Your task to perform on an android device: Go to Reddit.com Image 0: 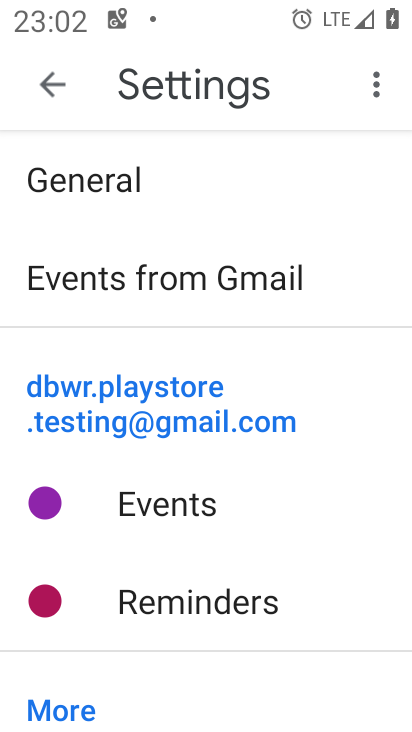
Step 0: press home button
Your task to perform on an android device: Go to Reddit.com Image 1: 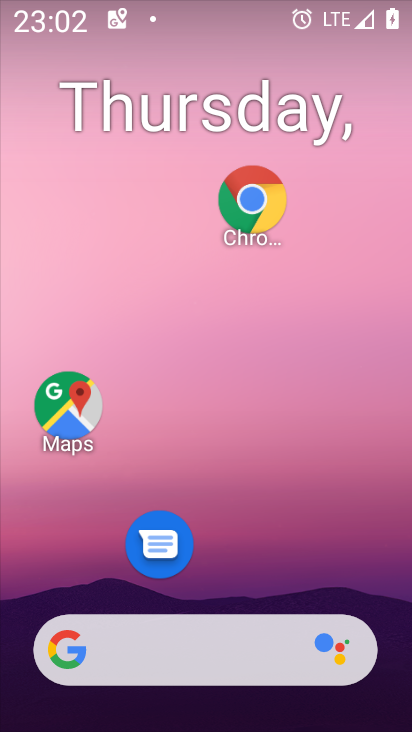
Step 1: click (196, 622)
Your task to perform on an android device: Go to Reddit.com Image 2: 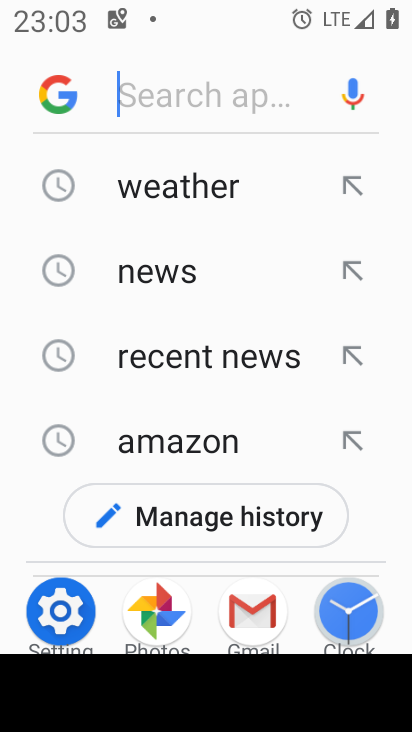
Step 2: type "reddit.cvom"
Your task to perform on an android device: Go to Reddit.com Image 3: 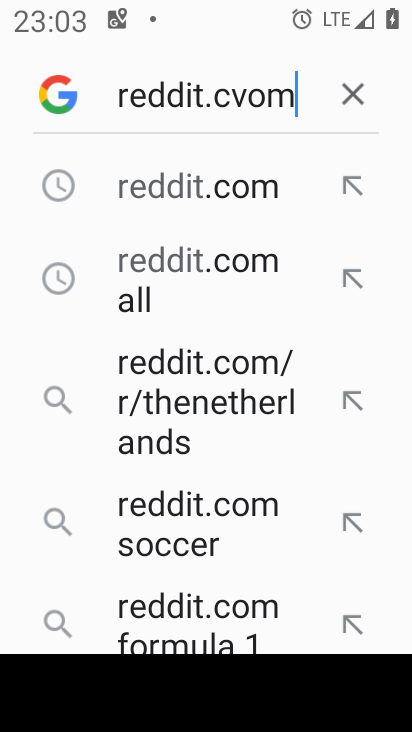
Step 3: type ""
Your task to perform on an android device: Go to Reddit.com Image 4: 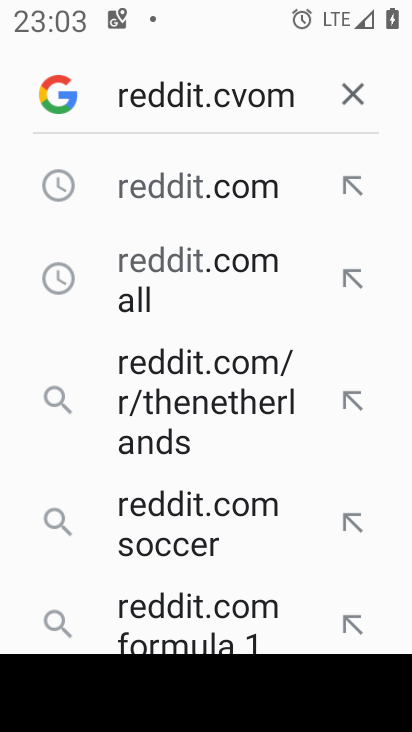
Step 4: type ""
Your task to perform on an android device: Go to Reddit.com Image 5: 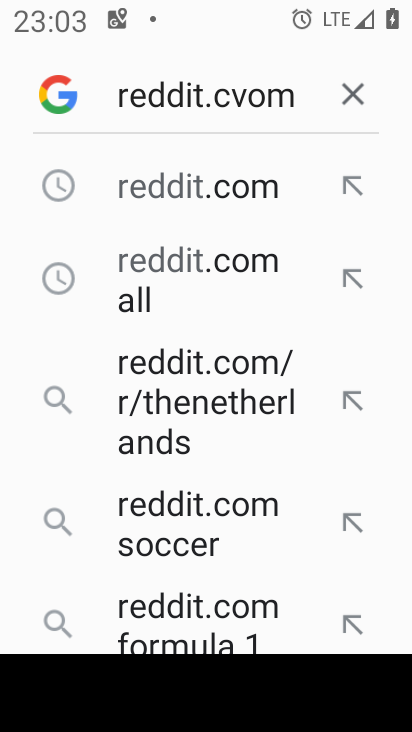
Step 5: click (196, 198)
Your task to perform on an android device: Go to Reddit.com Image 6: 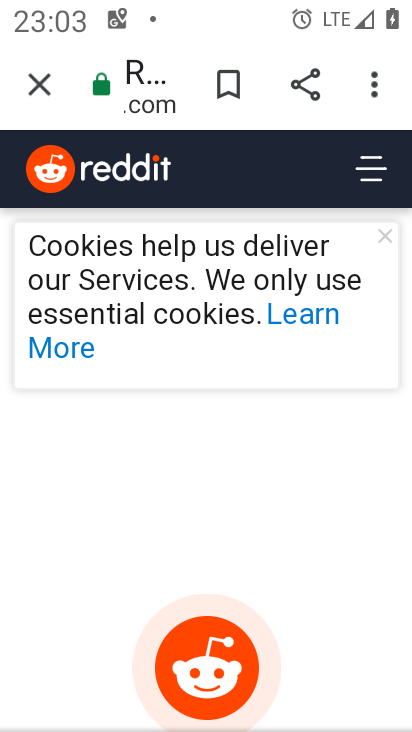
Step 6: task complete